Your task to perform on an android device: open wifi settings Image 0: 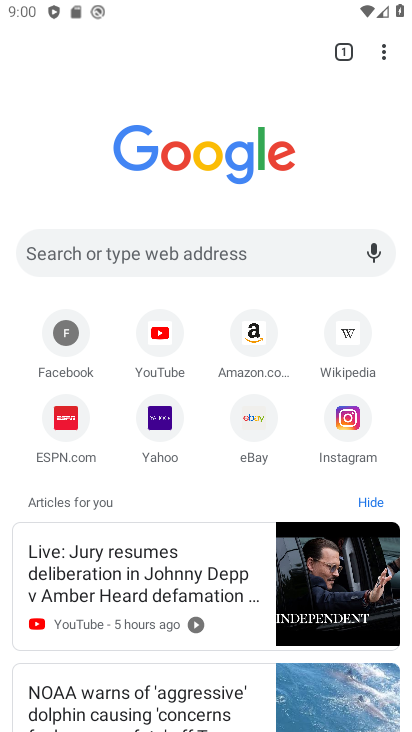
Step 0: drag from (161, 2) to (171, 377)
Your task to perform on an android device: open wifi settings Image 1: 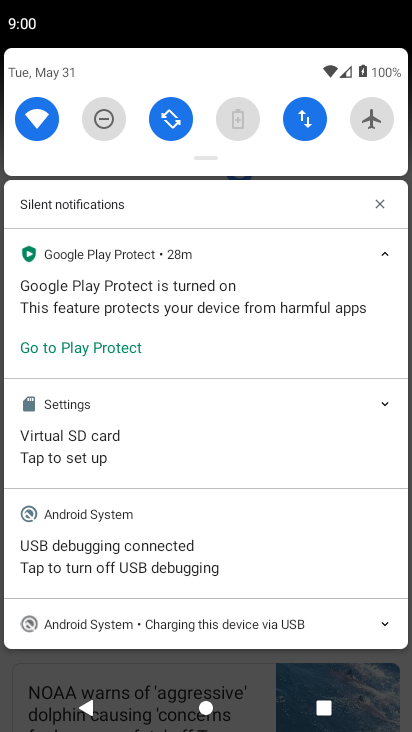
Step 1: click (44, 121)
Your task to perform on an android device: open wifi settings Image 2: 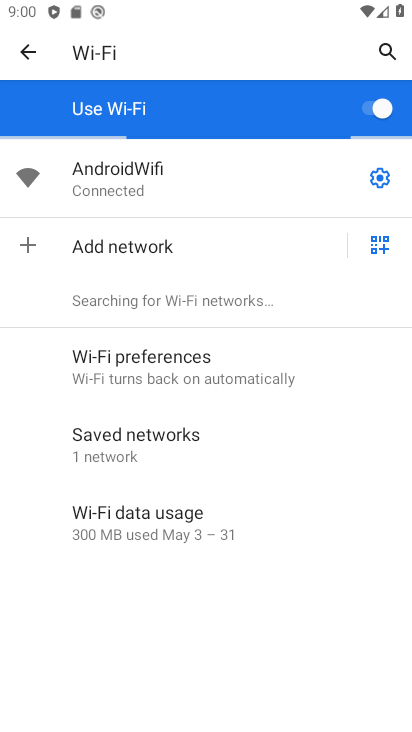
Step 2: click (385, 177)
Your task to perform on an android device: open wifi settings Image 3: 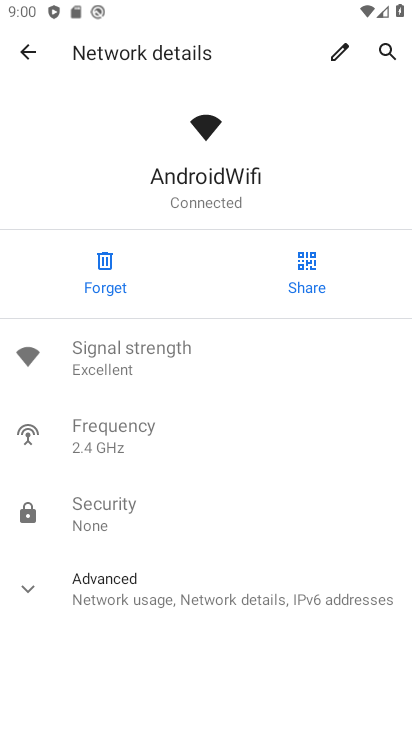
Step 3: task complete